Your task to perform on an android device: turn on translation in the chrome app Image 0: 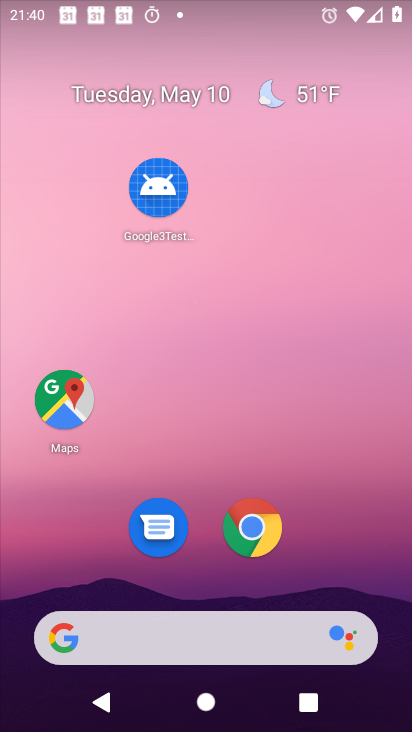
Step 0: click (264, 516)
Your task to perform on an android device: turn on translation in the chrome app Image 1: 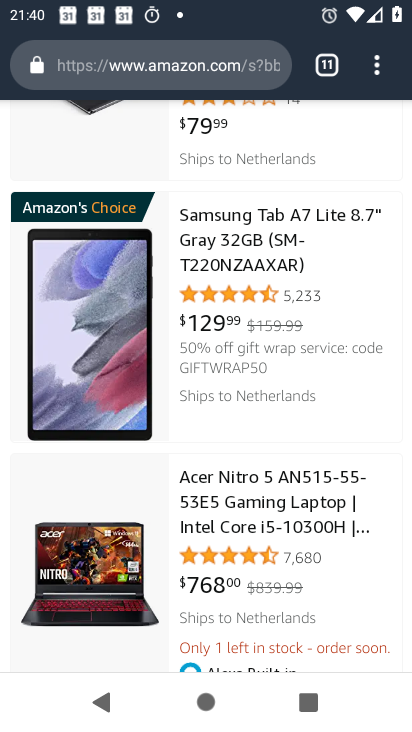
Step 1: click (376, 72)
Your task to perform on an android device: turn on translation in the chrome app Image 2: 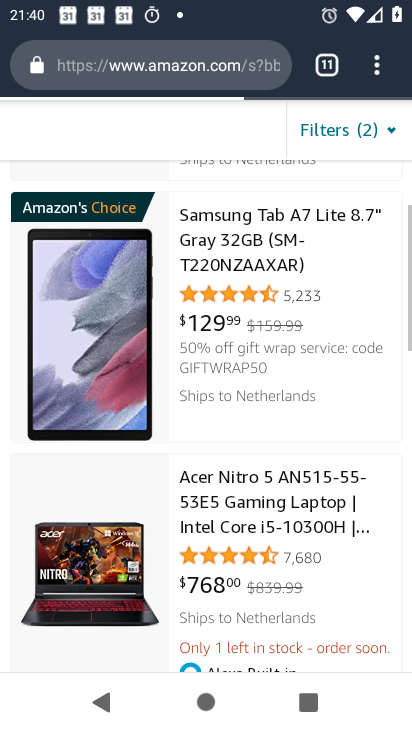
Step 2: click (378, 64)
Your task to perform on an android device: turn on translation in the chrome app Image 3: 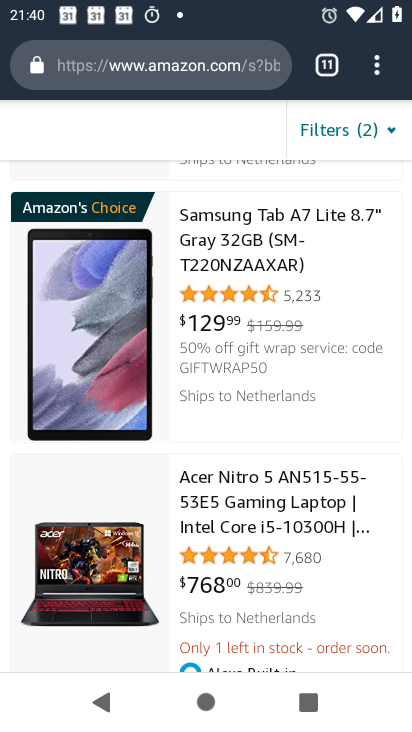
Step 3: click (378, 65)
Your task to perform on an android device: turn on translation in the chrome app Image 4: 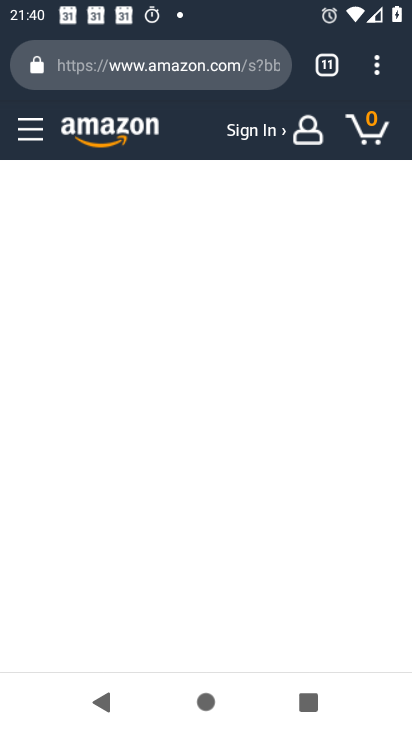
Step 4: drag from (374, 67) to (135, 569)
Your task to perform on an android device: turn on translation in the chrome app Image 5: 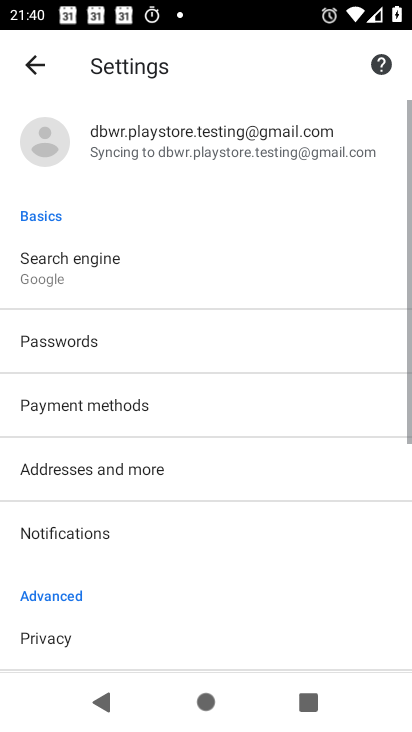
Step 5: drag from (165, 564) to (139, 358)
Your task to perform on an android device: turn on translation in the chrome app Image 6: 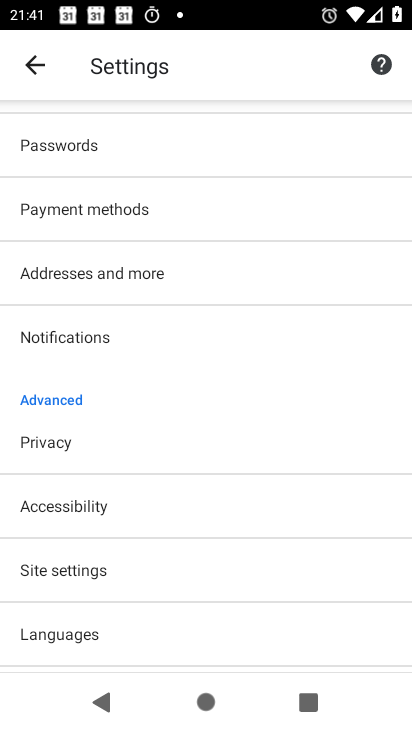
Step 6: drag from (94, 599) to (64, 225)
Your task to perform on an android device: turn on translation in the chrome app Image 7: 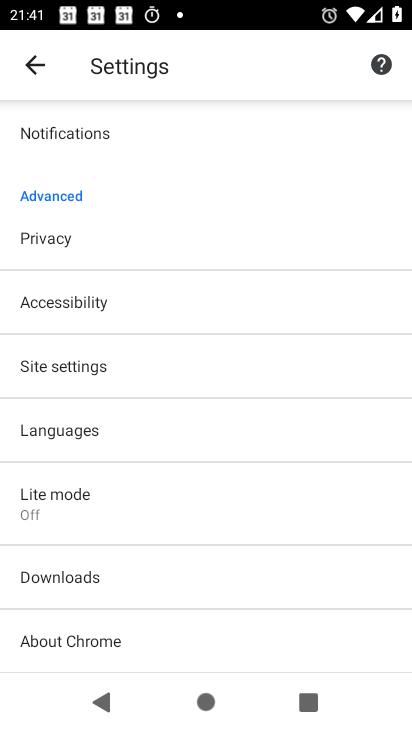
Step 7: click (91, 416)
Your task to perform on an android device: turn on translation in the chrome app Image 8: 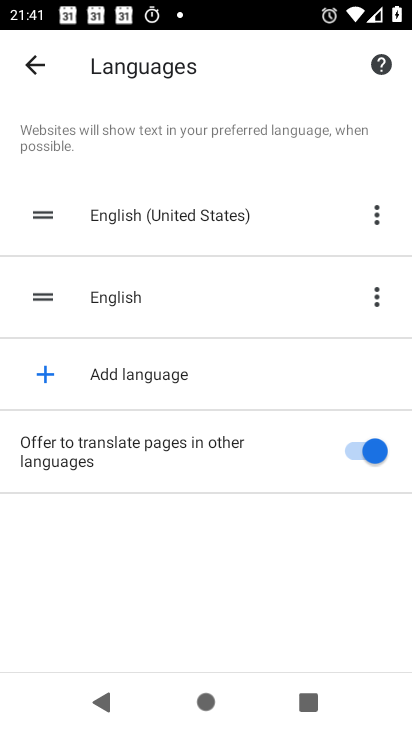
Step 8: task complete